Your task to perform on an android device: open chrome privacy settings Image 0: 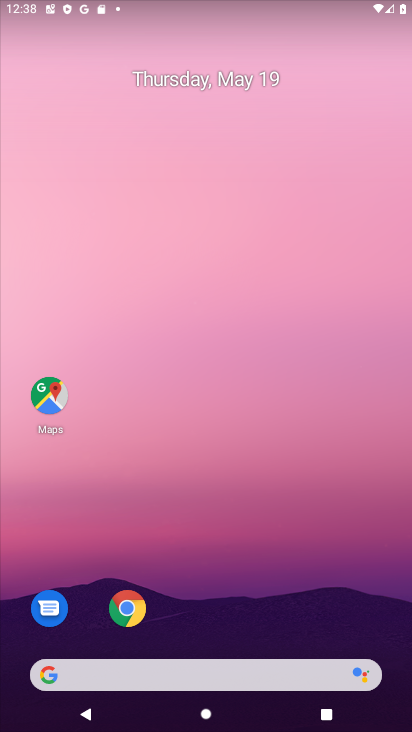
Step 0: click (116, 605)
Your task to perform on an android device: open chrome privacy settings Image 1: 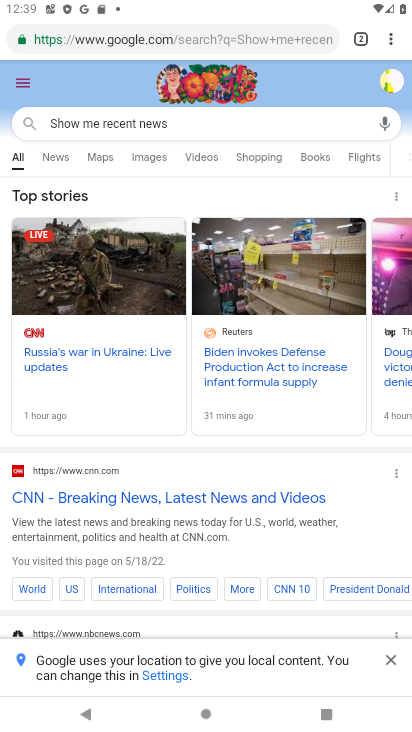
Step 1: click (379, 36)
Your task to perform on an android device: open chrome privacy settings Image 2: 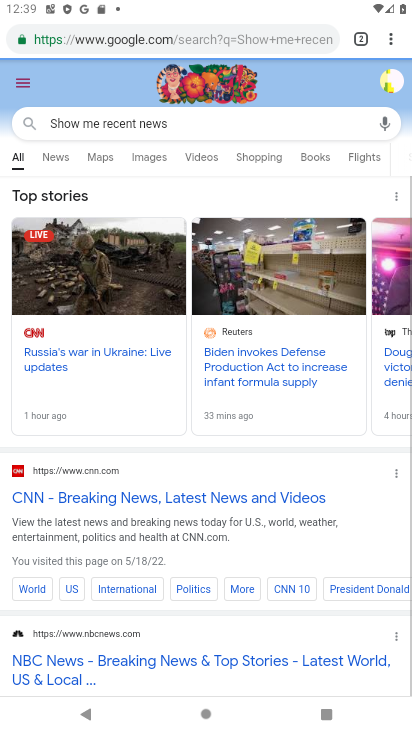
Step 2: click (393, 38)
Your task to perform on an android device: open chrome privacy settings Image 3: 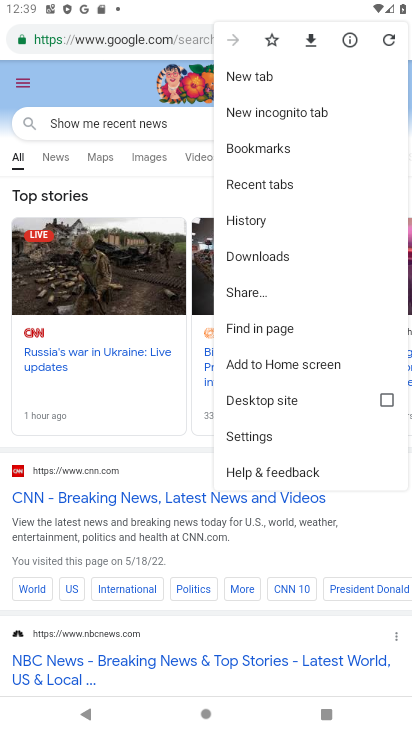
Step 3: click (282, 424)
Your task to perform on an android device: open chrome privacy settings Image 4: 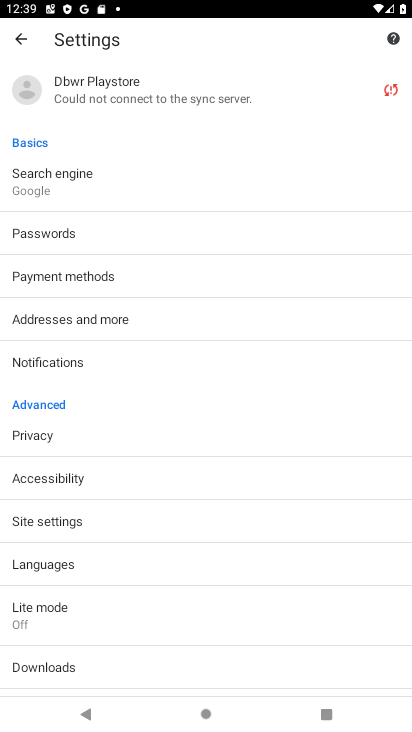
Step 4: drag from (114, 575) to (175, 356)
Your task to perform on an android device: open chrome privacy settings Image 5: 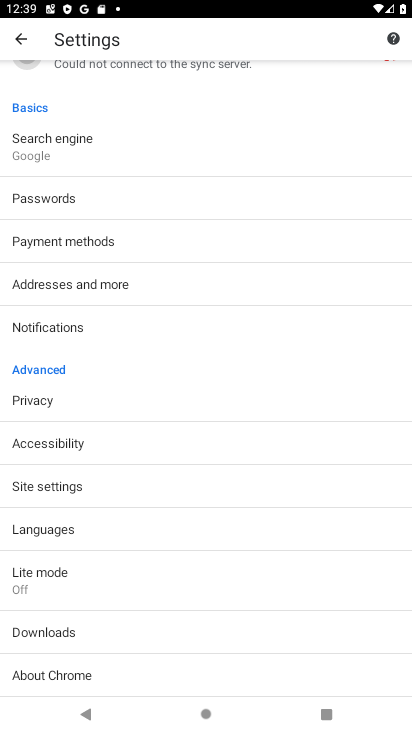
Step 5: click (54, 396)
Your task to perform on an android device: open chrome privacy settings Image 6: 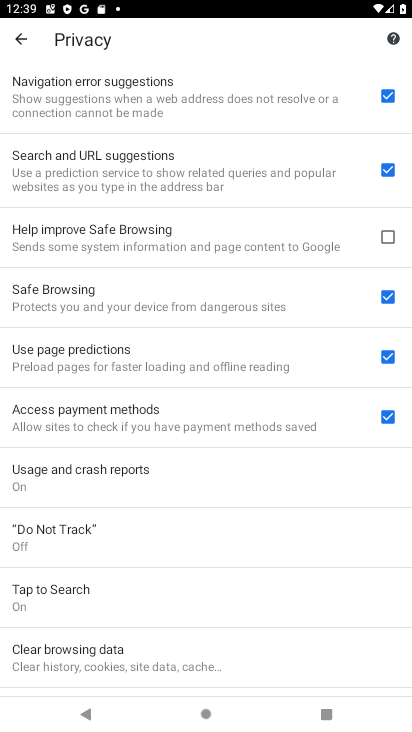
Step 6: task complete